Your task to perform on an android device: Open internet settings Image 0: 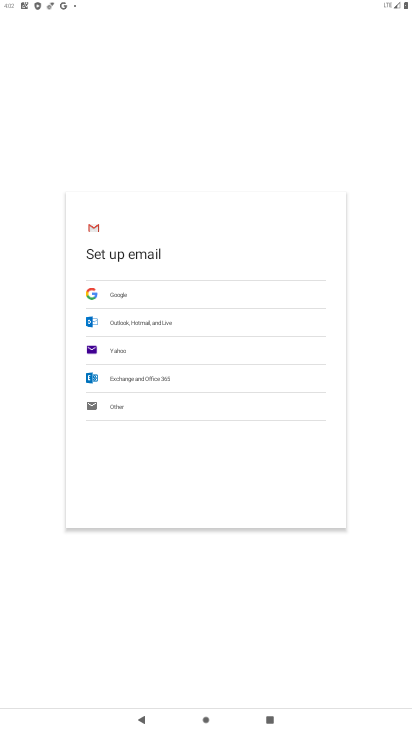
Step 0: press home button
Your task to perform on an android device: Open internet settings Image 1: 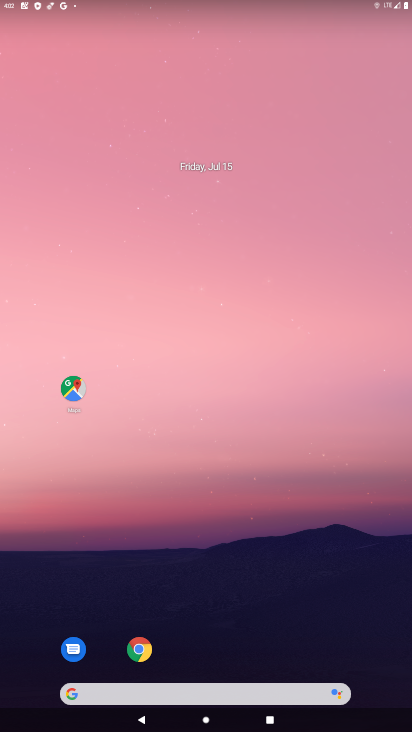
Step 1: drag from (217, 664) to (228, 305)
Your task to perform on an android device: Open internet settings Image 2: 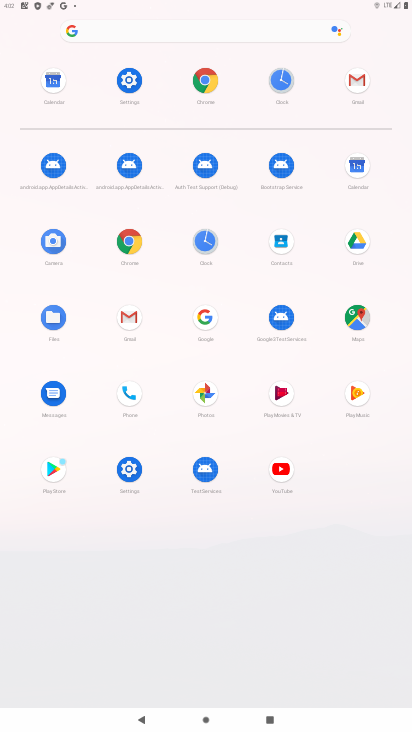
Step 2: click (123, 80)
Your task to perform on an android device: Open internet settings Image 3: 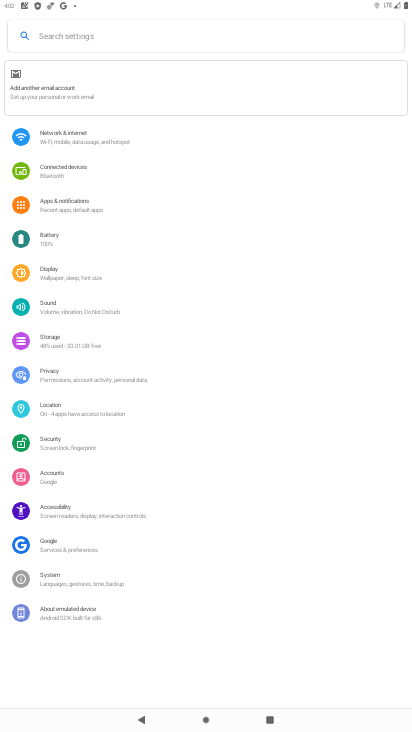
Step 3: click (86, 148)
Your task to perform on an android device: Open internet settings Image 4: 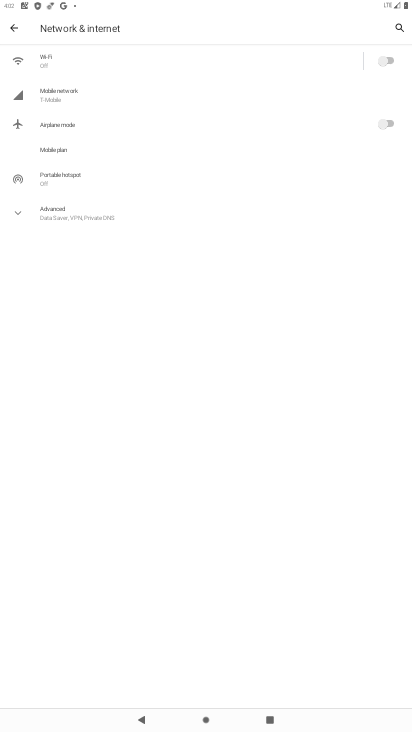
Step 4: task complete